Your task to perform on an android device: Search for the Best selling coffee table on Ikea Image 0: 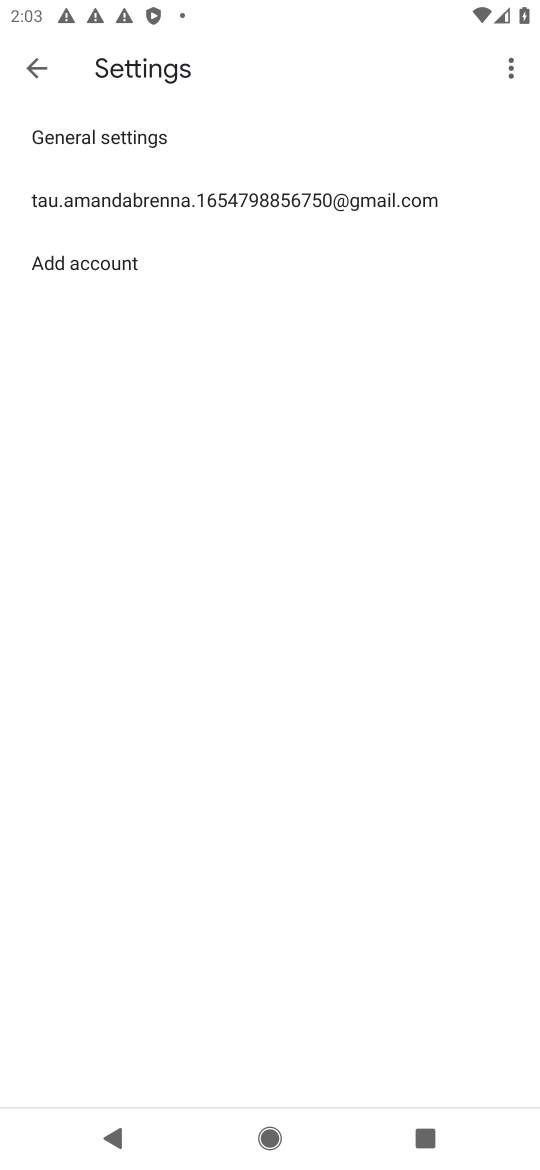
Step 0: press home button
Your task to perform on an android device: Search for the Best selling coffee table on Ikea Image 1: 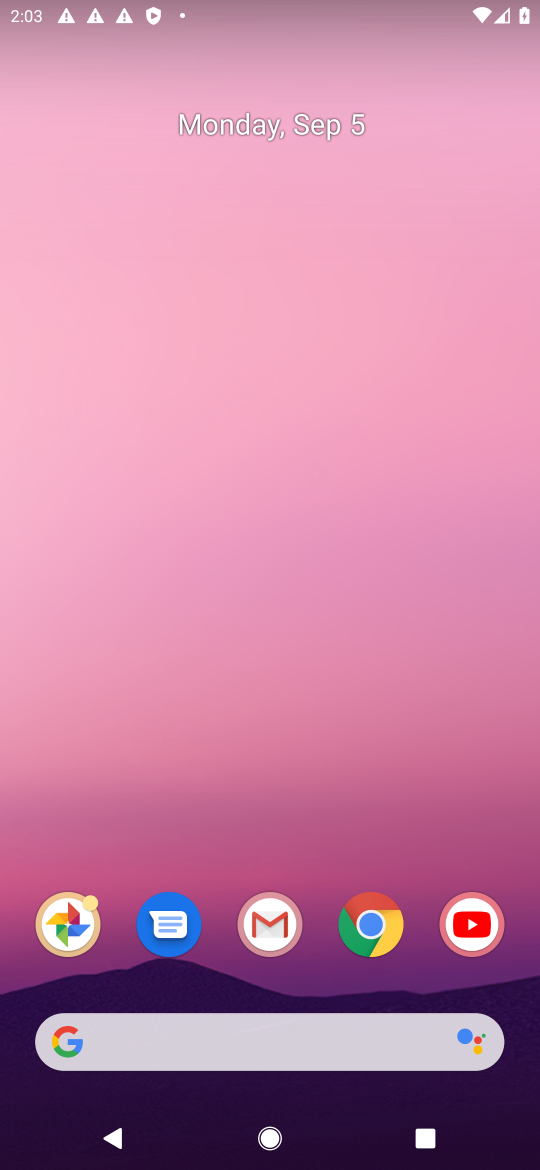
Step 1: click (363, 929)
Your task to perform on an android device: Search for the Best selling coffee table on Ikea Image 2: 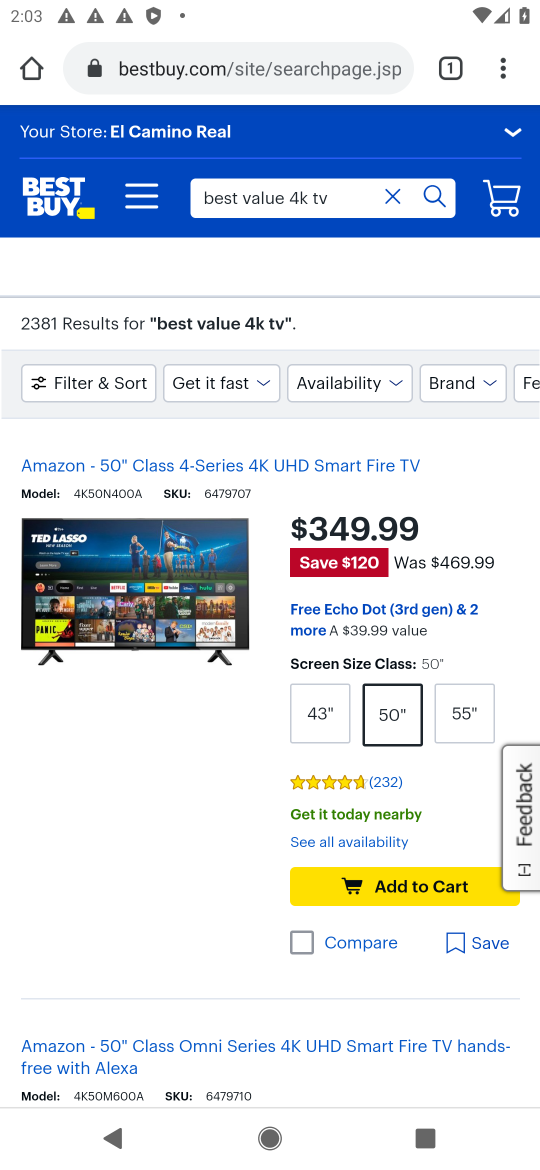
Step 2: click (326, 48)
Your task to perform on an android device: Search for the Best selling coffee table on Ikea Image 3: 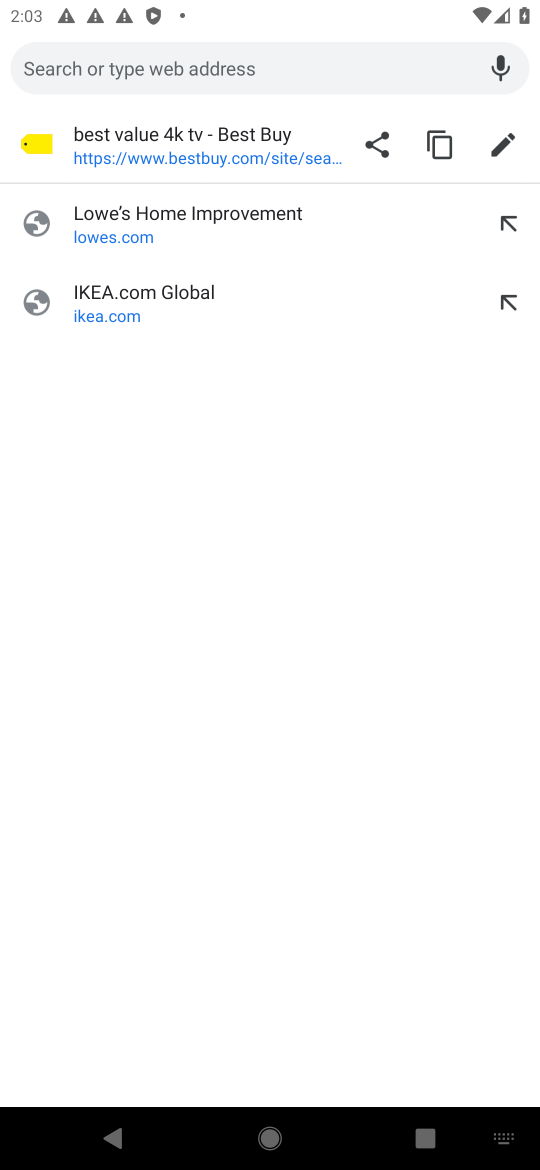
Step 3: type "Ikea"
Your task to perform on an android device: Search for the Best selling coffee table on Ikea Image 4: 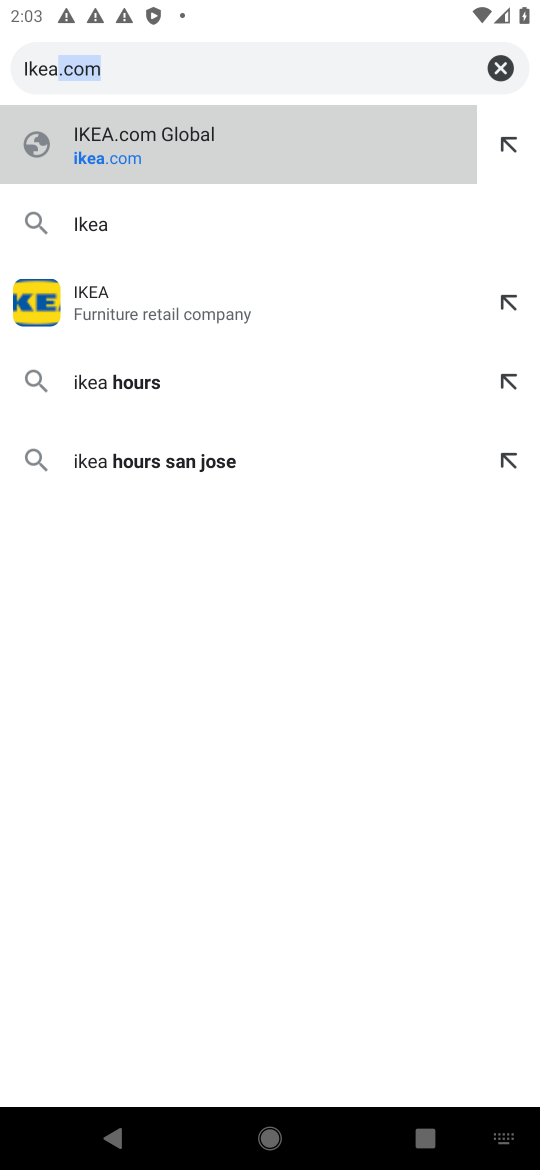
Step 4: click (36, 310)
Your task to perform on an android device: Search for the Best selling coffee table on Ikea Image 5: 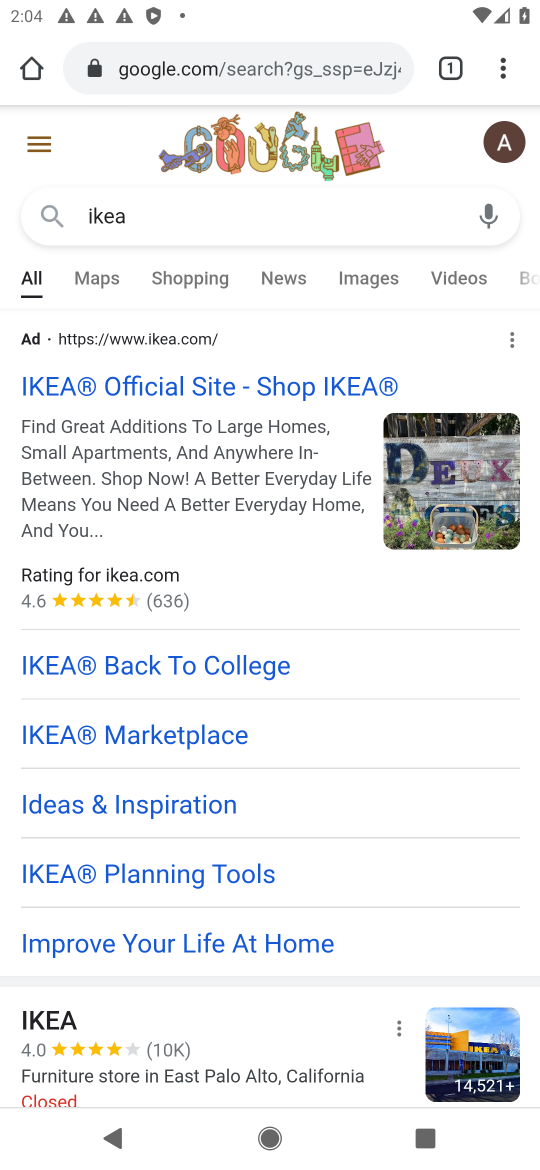
Step 5: click (36, 310)
Your task to perform on an android device: Search for the Best selling coffee table on Ikea Image 6: 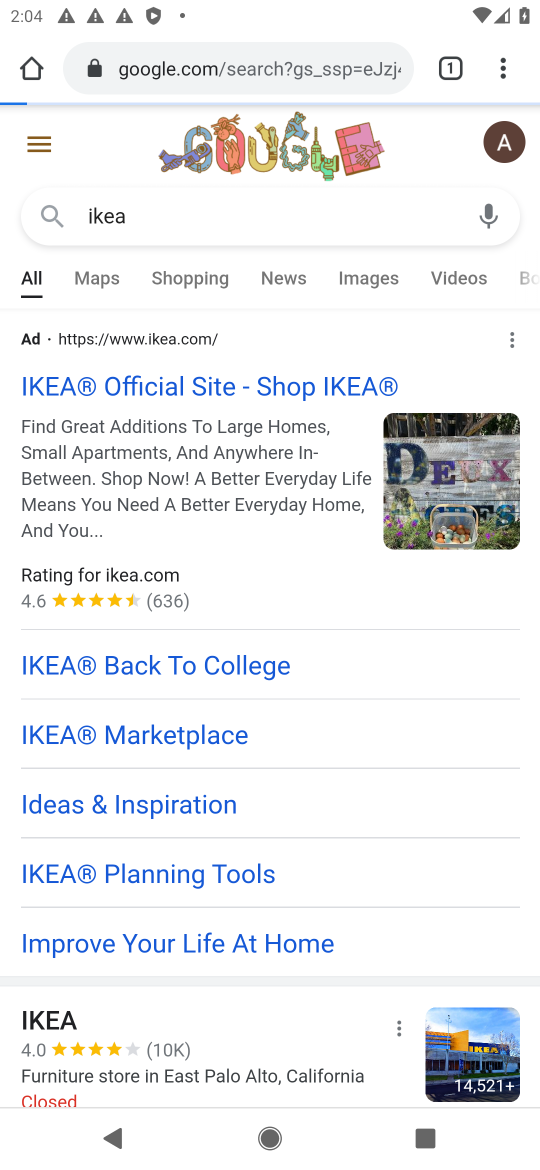
Step 6: click (275, 4)
Your task to perform on an android device: Search for the Best selling coffee table on Ikea Image 7: 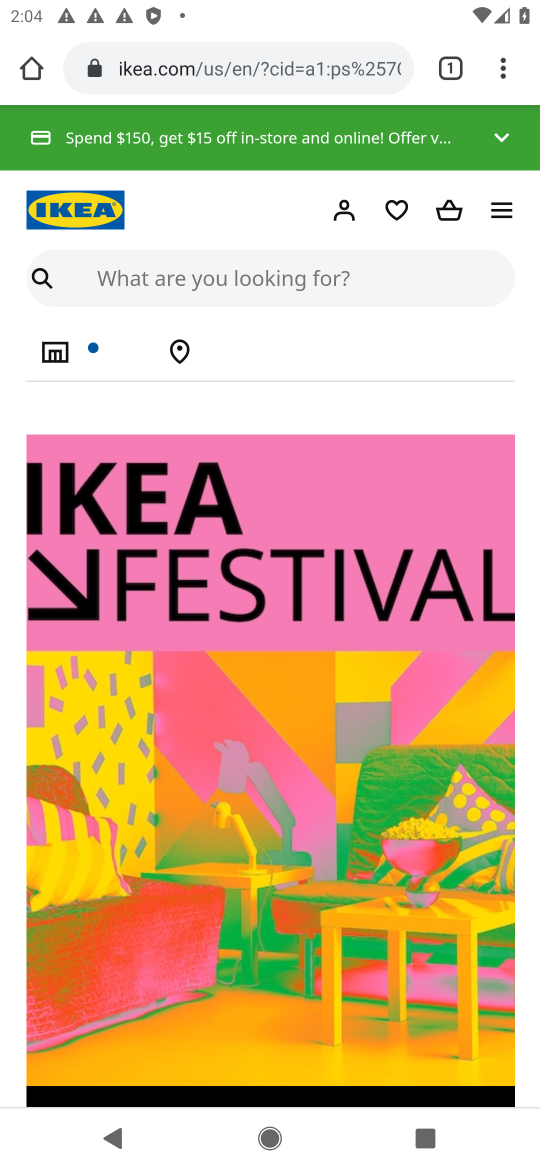
Step 7: click (341, 284)
Your task to perform on an android device: Search for the Best selling coffee table on Ikea Image 8: 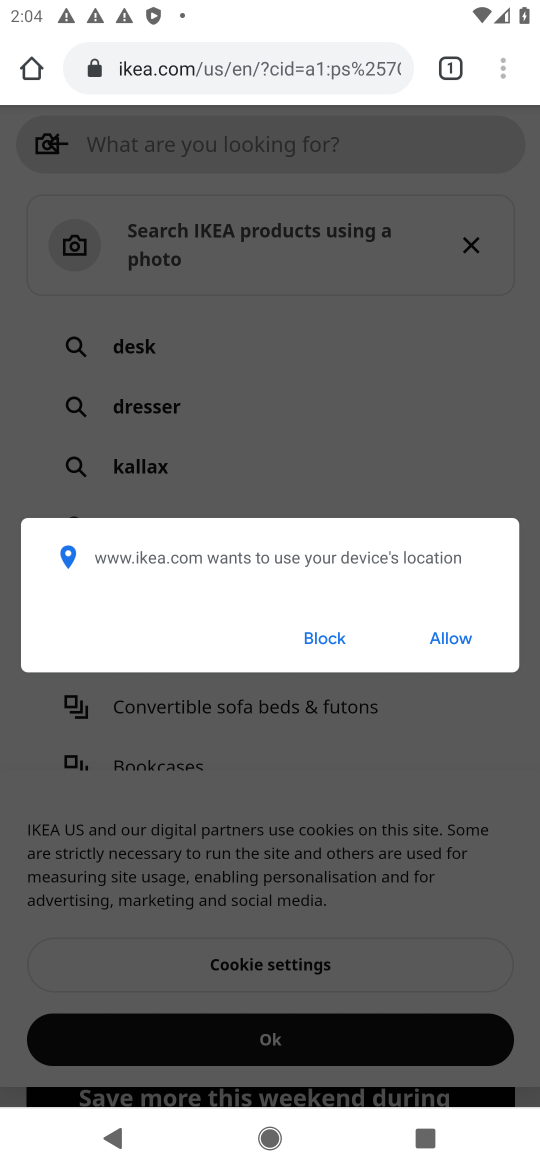
Step 8: click (477, 629)
Your task to perform on an android device: Search for the Best selling coffee table on Ikea Image 9: 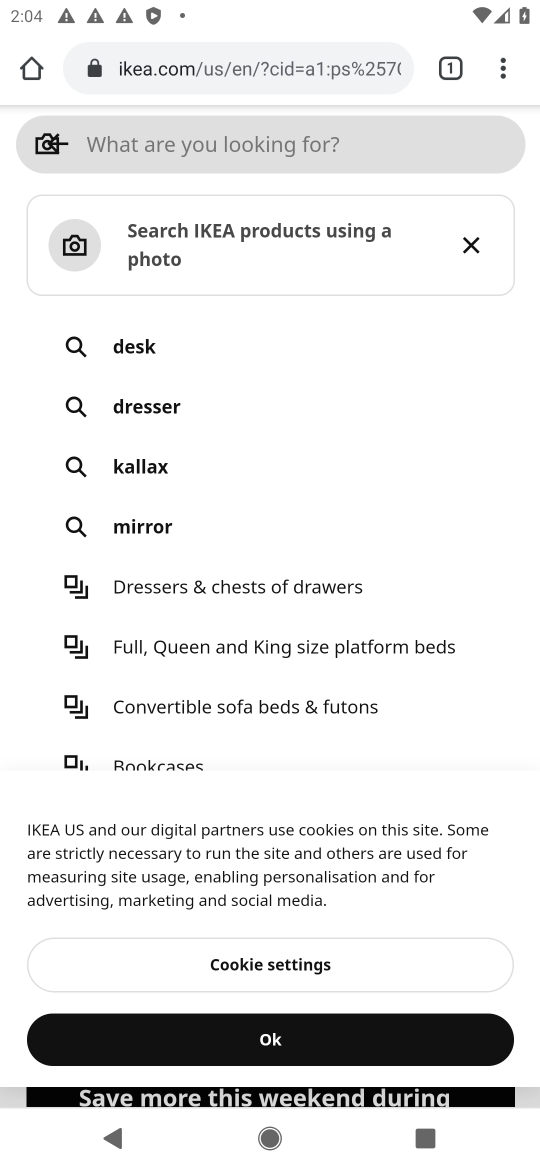
Step 9: click (428, 136)
Your task to perform on an android device: Search for the Best selling coffee table on Ikea Image 10: 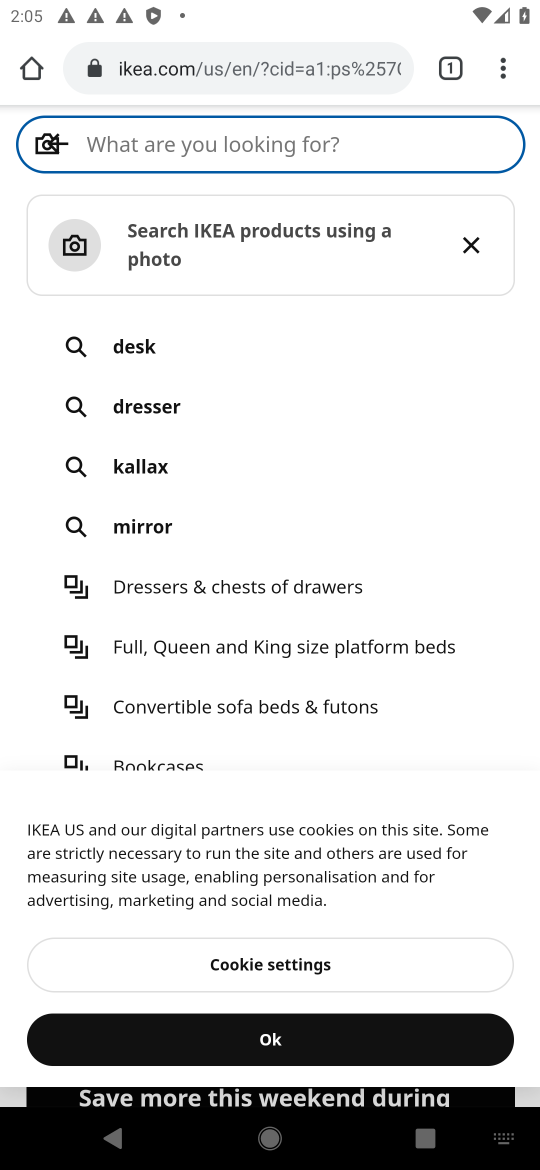
Step 10: type "best selling coffee"
Your task to perform on an android device: Search for the Best selling coffee table on Ikea Image 11: 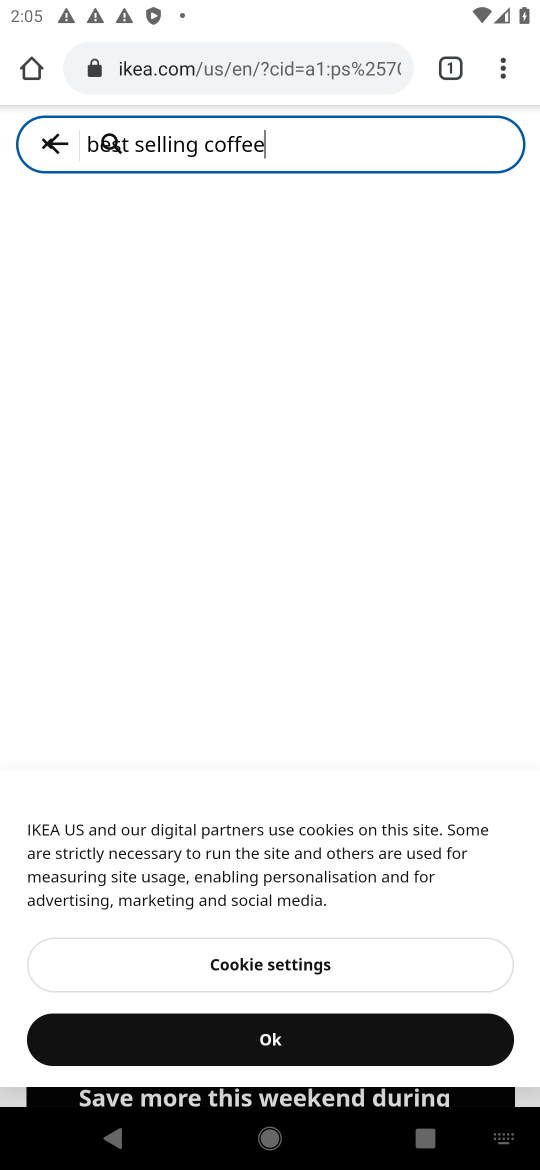
Step 11: click (118, 145)
Your task to perform on an android device: Search for the Best selling coffee table on Ikea Image 12: 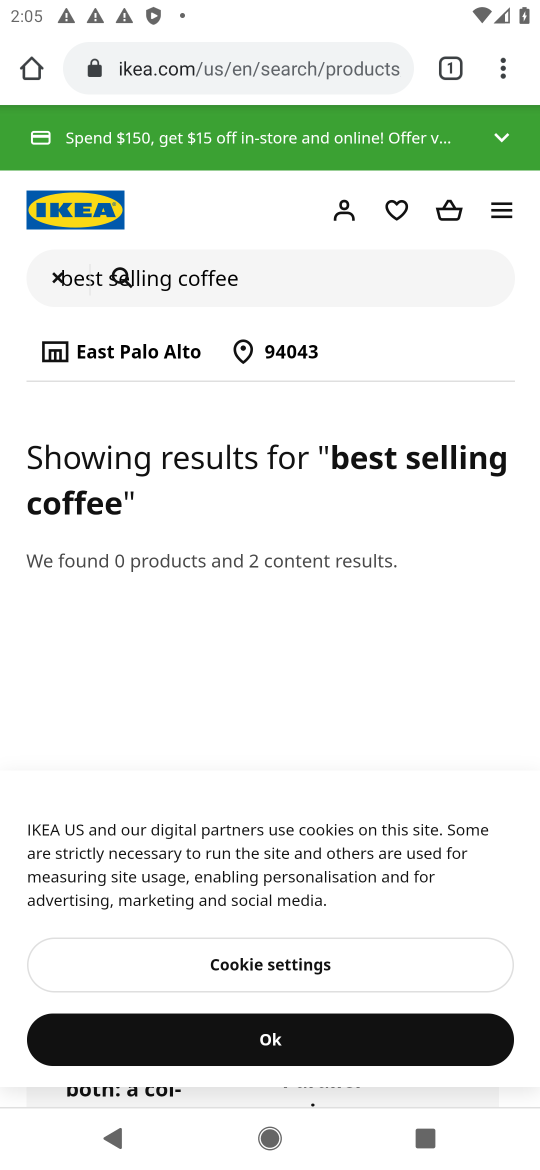
Step 12: task complete